Your task to perform on an android device: open the mobile data screen to see how much data has been used Image 0: 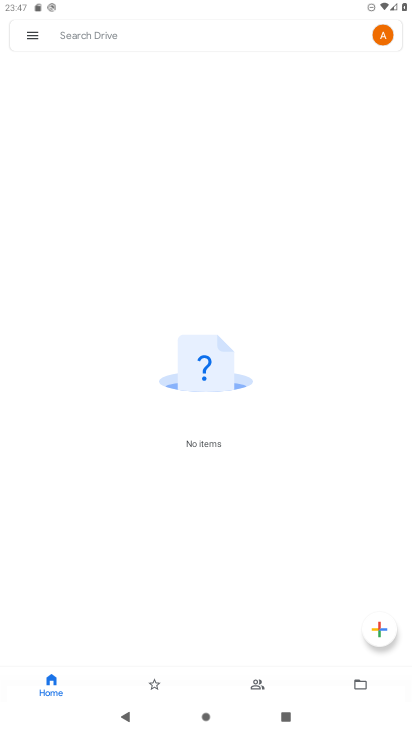
Step 0: click (230, 606)
Your task to perform on an android device: open the mobile data screen to see how much data has been used Image 1: 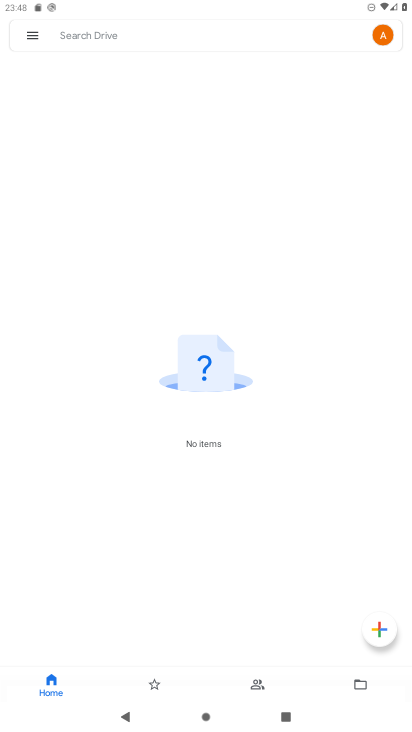
Step 1: press home button
Your task to perform on an android device: open the mobile data screen to see how much data has been used Image 2: 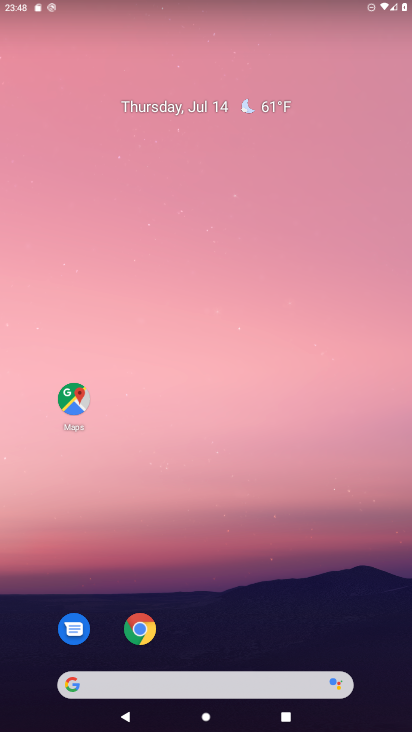
Step 2: drag from (247, 5) to (271, 336)
Your task to perform on an android device: open the mobile data screen to see how much data has been used Image 3: 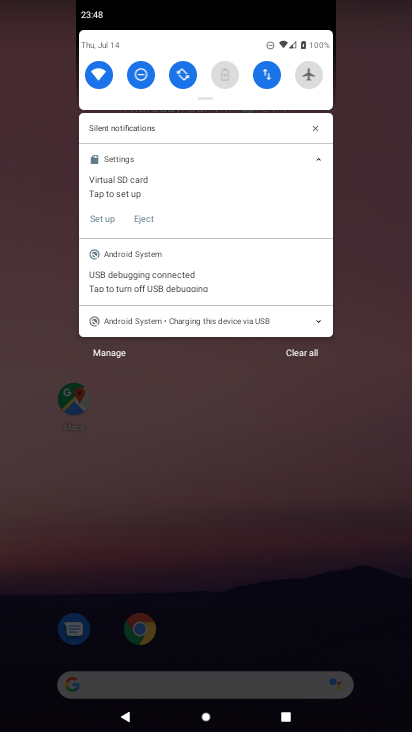
Step 3: click (268, 74)
Your task to perform on an android device: open the mobile data screen to see how much data has been used Image 4: 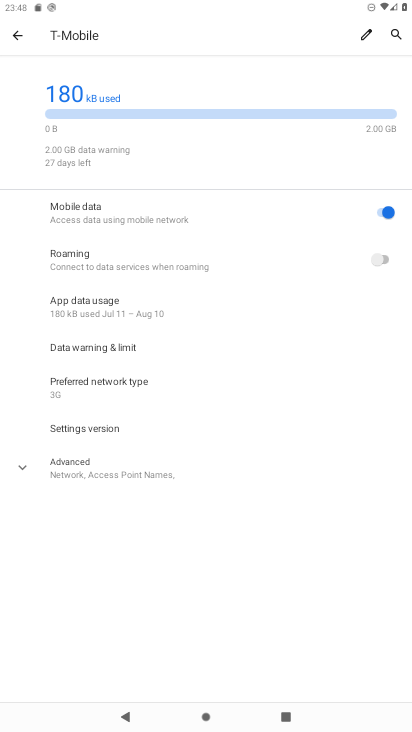
Step 4: task complete